Your task to perform on an android device: Open Yahoo.com Image 0: 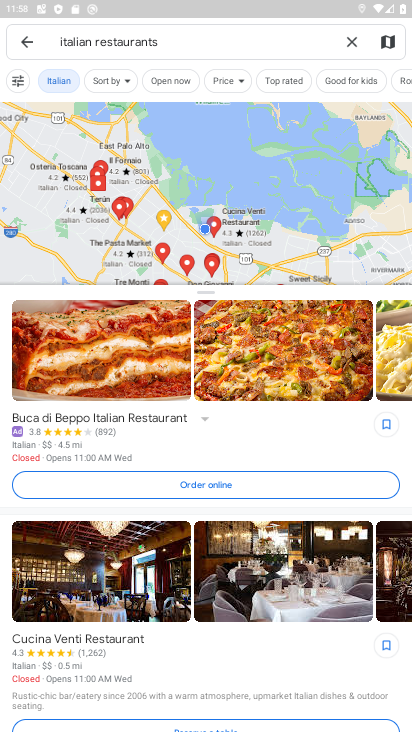
Step 0: press home button
Your task to perform on an android device: Open Yahoo.com Image 1: 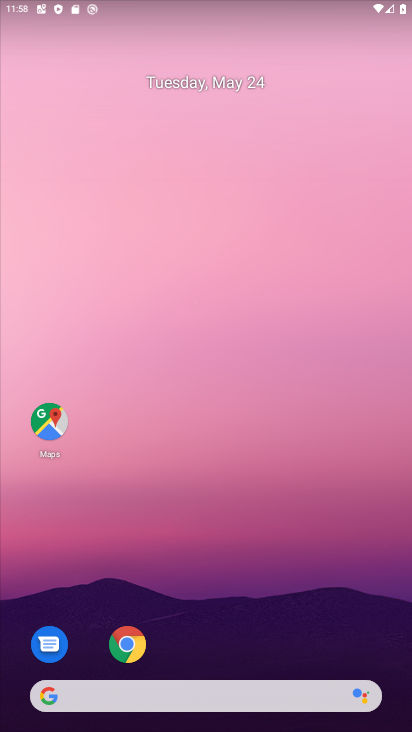
Step 1: click (122, 656)
Your task to perform on an android device: Open Yahoo.com Image 2: 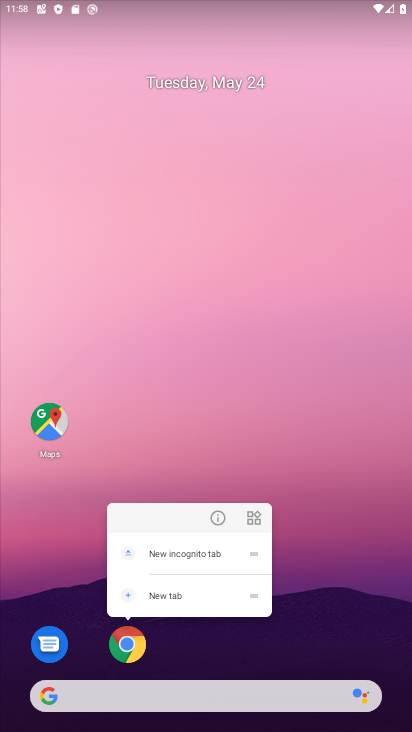
Step 2: click (121, 655)
Your task to perform on an android device: Open Yahoo.com Image 3: 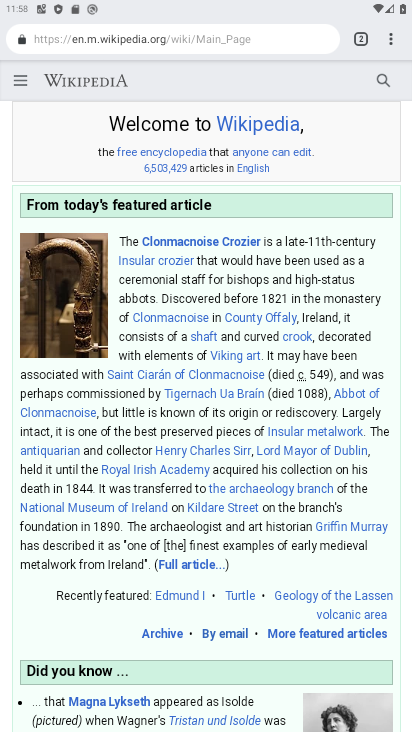
Step 3: drag from (387, 31) to (353, 76)
Your task to perform on an android device: Open Yahoo.com Image 4: 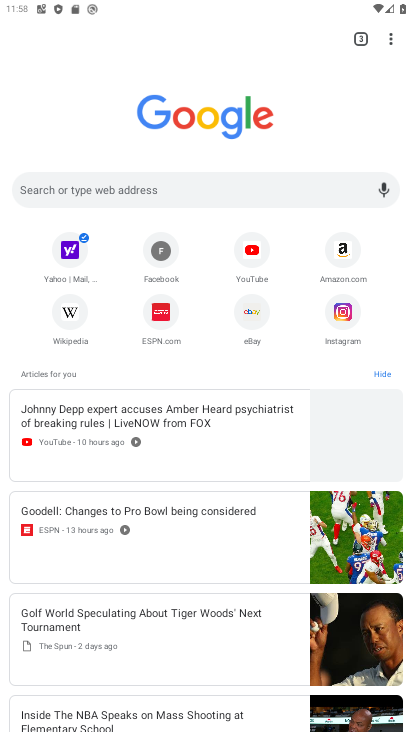
Step 4: click (72, 263)
Your task to perform on an android device: Open Yahoo.com Image 5: 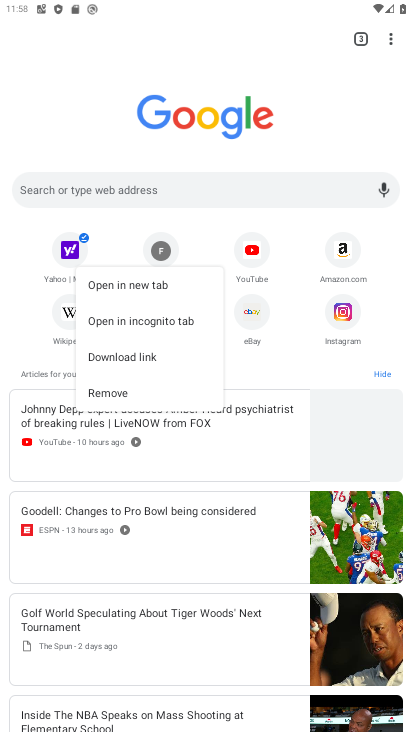
Step 5: click (68, 259)
Your task to perform on an android device: Open Yahoo.com Image 6: 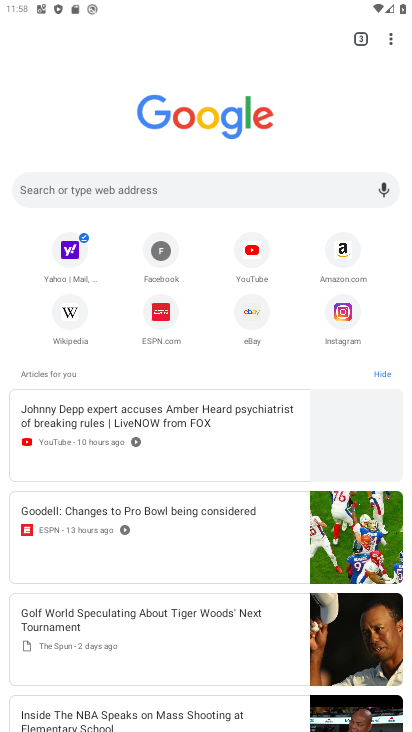
Step 6: click (67, 249)
Your task to perform on an android device: Open Yahoo.com Image 7: 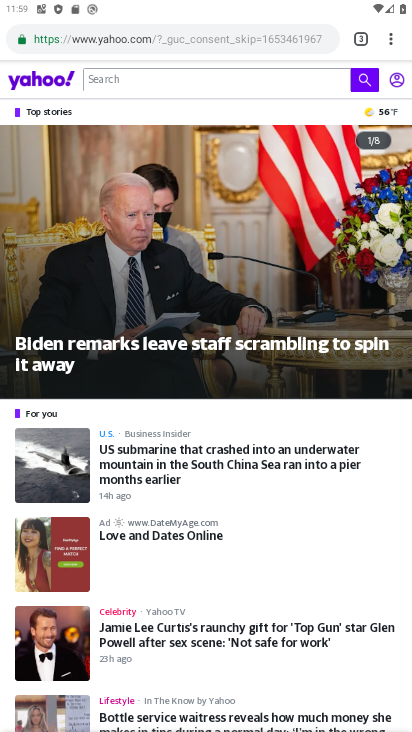
Step 7: task complete